Your task to perform on an android device: Check the news Image 0: 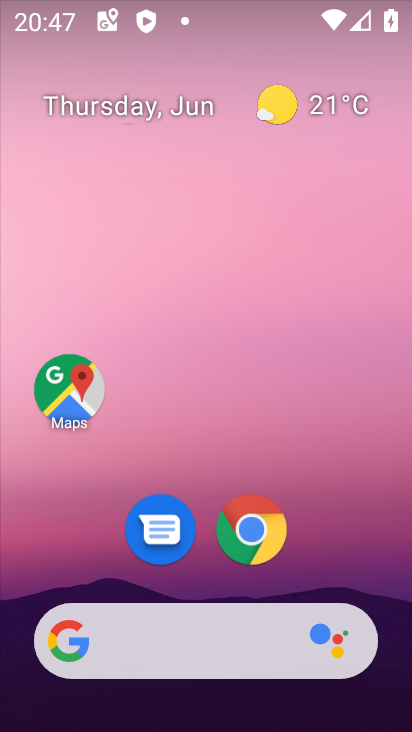
Step 0: click (202, 637)
Your task to perform on an android device: Check the news Image 1: 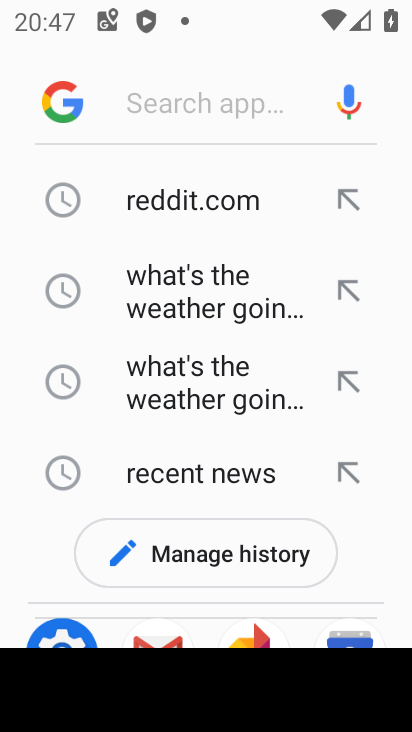
Step 1: type "news"
Your task to perform on an android device: Check the news Image 2: 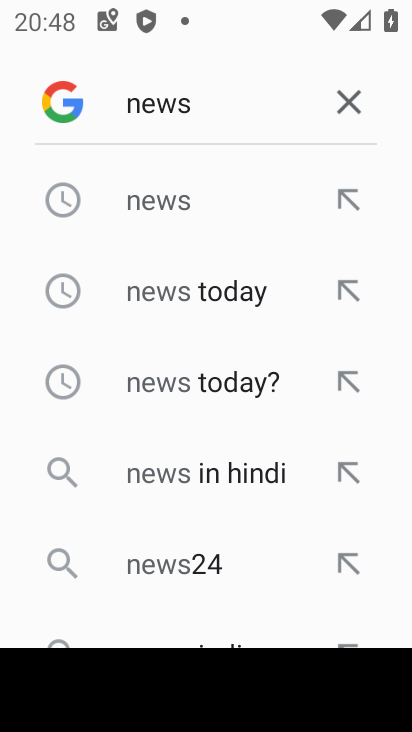
Step 2: click (158, 197)
Your task to perform on an android device: Check the news Image 3: 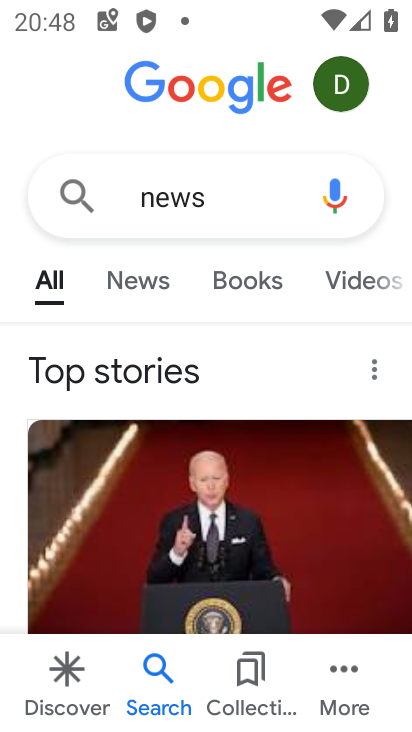
Step 3: task complete